Your task to perform on an android device: see tabs open on other devices in the chrome app Image 0: 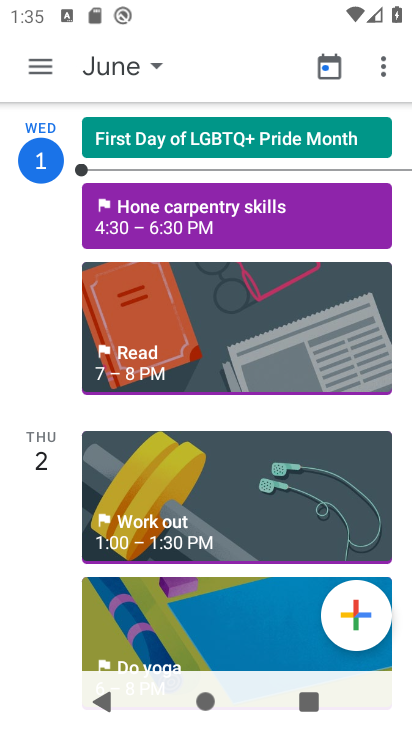
Step 0: press home button
Your task to perform on an android device: see tabs open on other devices in the chrome app Image 1: 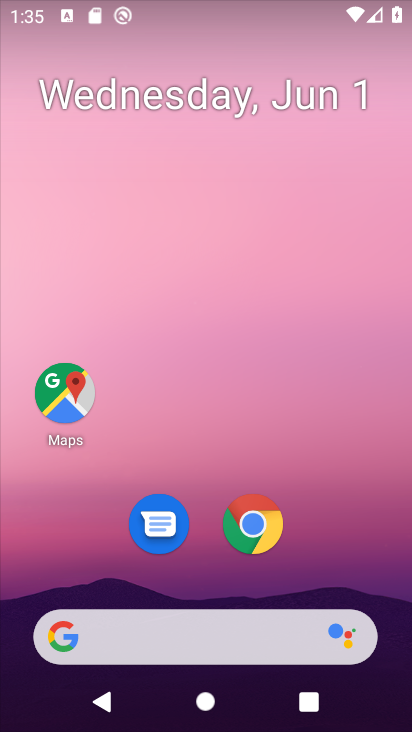
Step 1: click (265, 531)
Your task to perform on an android device: see tabs open on other devices in the chrome app Image 2: 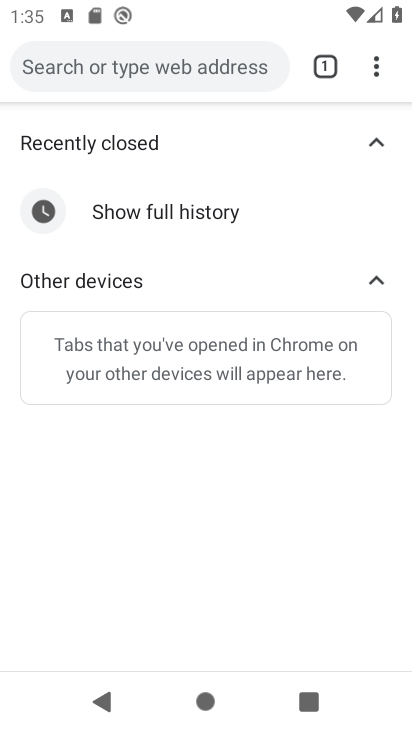
Step 2: click (371, 56)
Your task to perform on an android device: see tabs open on other devices in the chrome app Image 3: 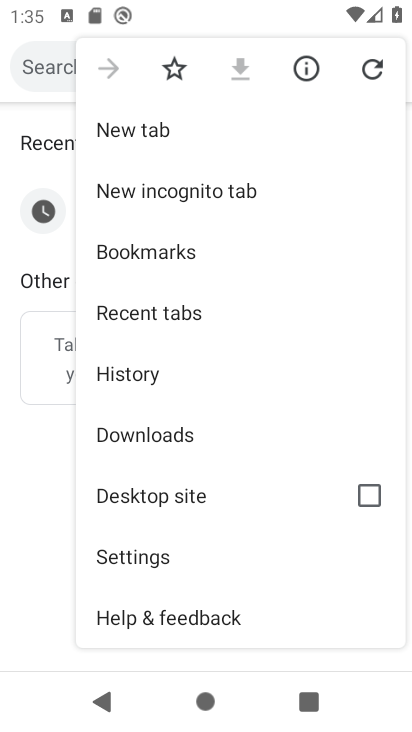
Step 3: click (179, 319)
Your task to perform on an android device: see tabs open on other devices in the chrome app Image 4: 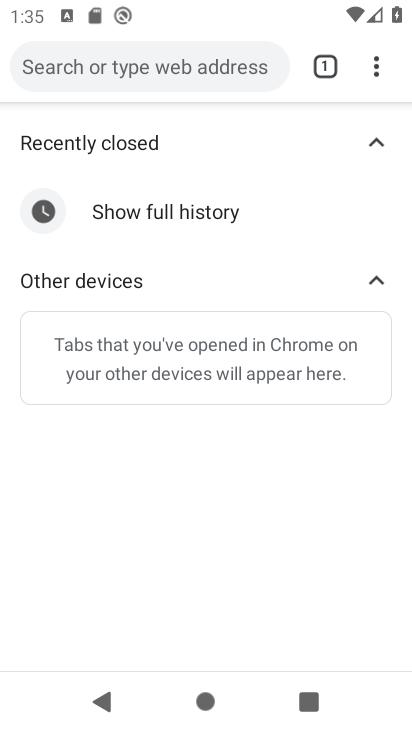
Step 4: task complete